Your task to perform on an android device: turn on location history Image 0: 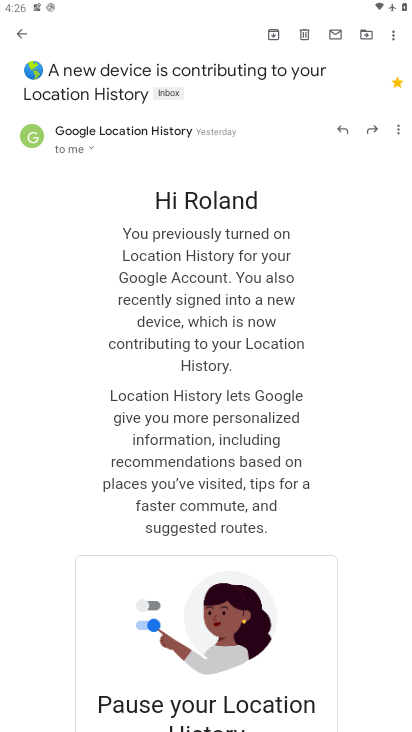
Step 0: press home button
Your task to perform on an android device: turn on location history Image 1: 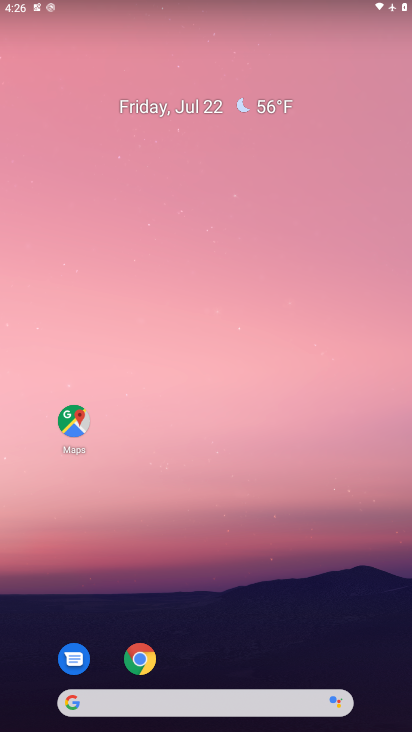
Step 1: drag from (208, 694) to (223, 310)
Your task to perform on an android device: turn on location history Image 2: 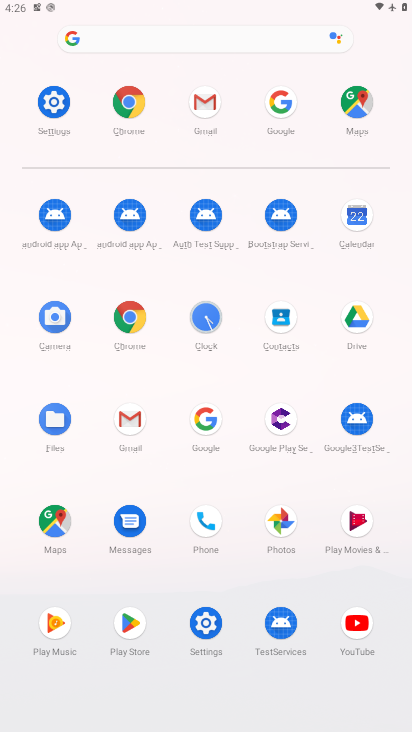
Step 2: click (58, 109)
Your task to perform on an android device: turn on location history Image 3: 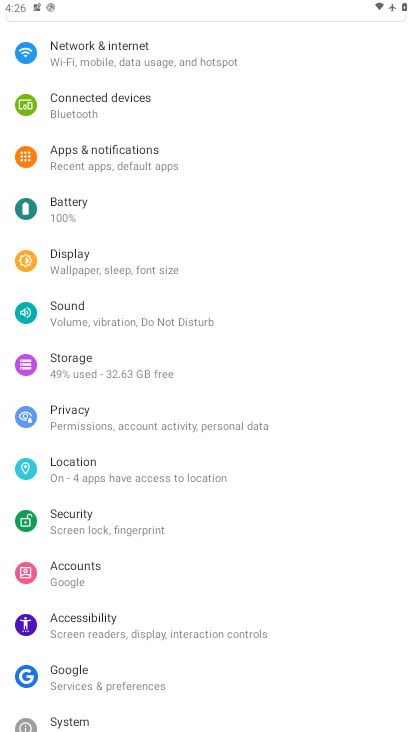
Step 3: click (74, 491)
Your task to perform on an android device: turn on location history Image 4: 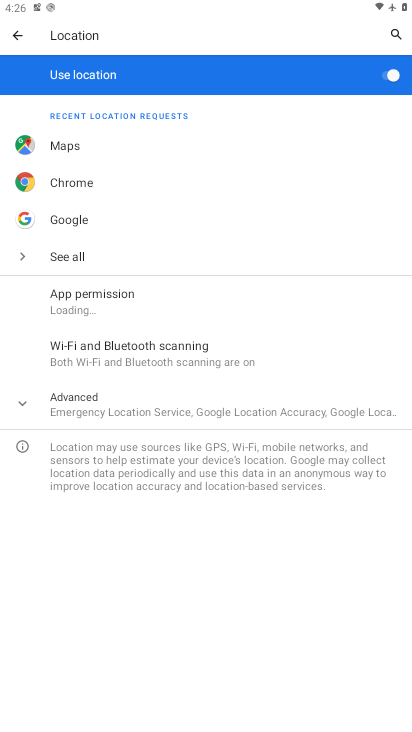
Step 4: click (94, 389)
Your task to perform on an android device: turn on location history Image 5: 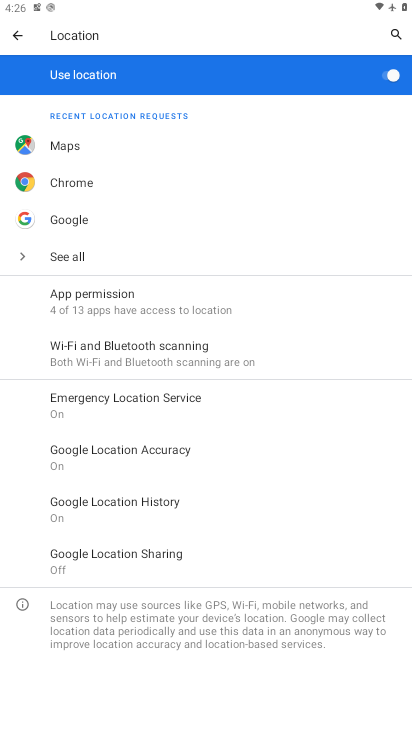
Step 5: click (127, 505)
Your task to perform on an android device: turn on location history Image 6: 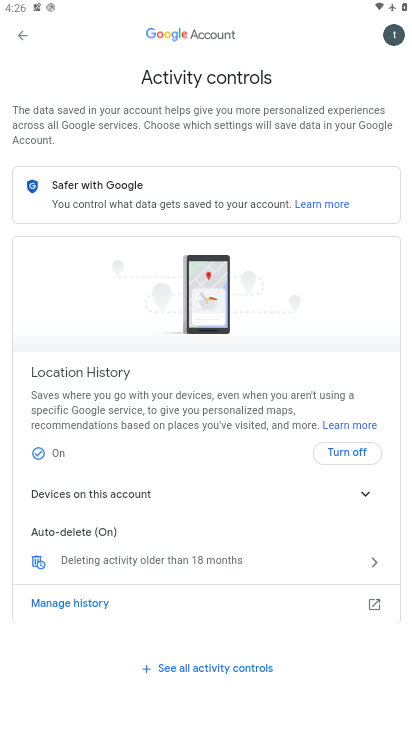
Step 6: task complete